Your task to perform on an android device: Open the stopwatch Image 0: 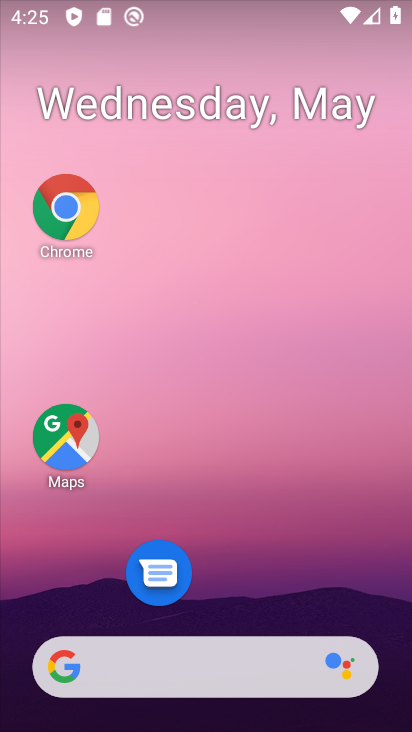
Step 0: drag from (316, 621) to (143, 19)
Your task to perform on an android device: Open the stopwatch Image 1: 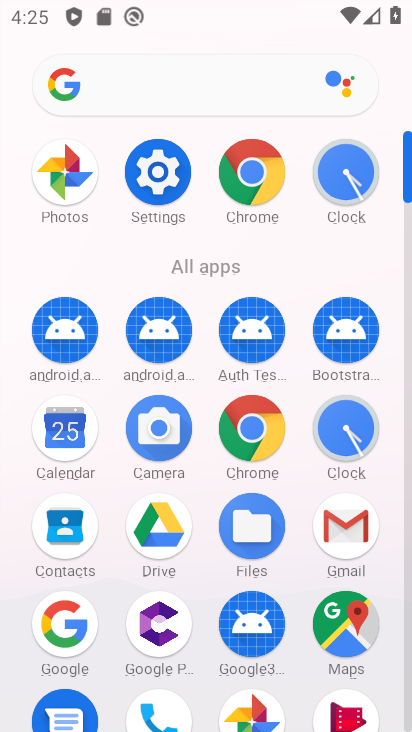
Step 1: click (352, 173)
Your task to perform on an android device: Open the stopwatch Image 2: 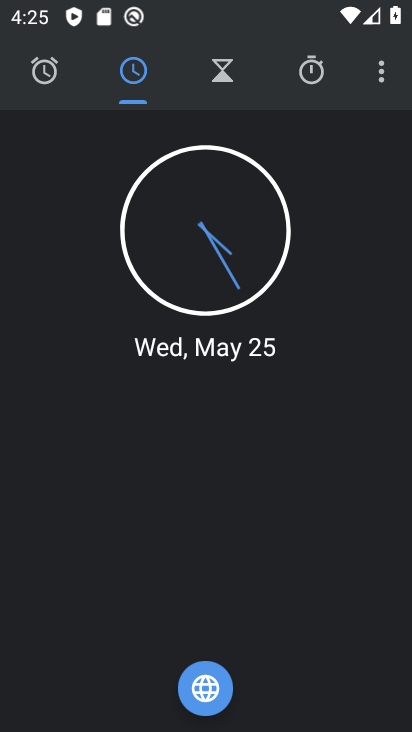
Step 2: click (323, 168)
Your task to perform on an android device: Open the stopwatch Image 3: 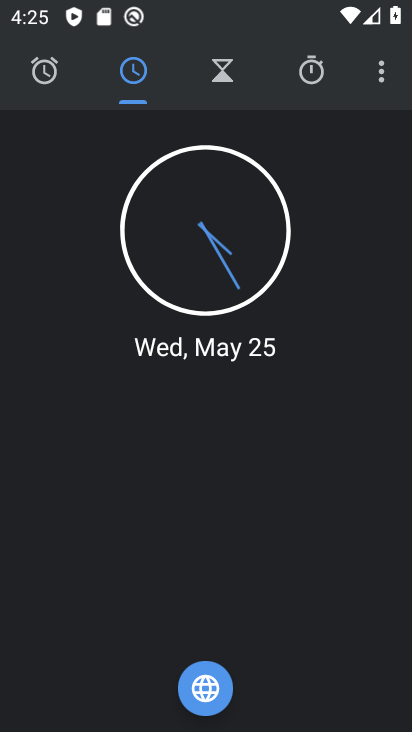
Step 3: click (327, 176)
Your task to perform on an android device: Open the stopwatch Image 4: 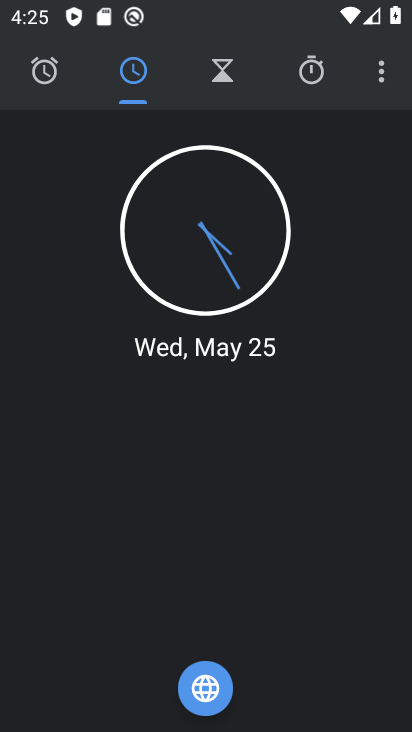
Step 4: click (327, 176)
Your task to perform on an android device: Open the stopwatch Image 5: 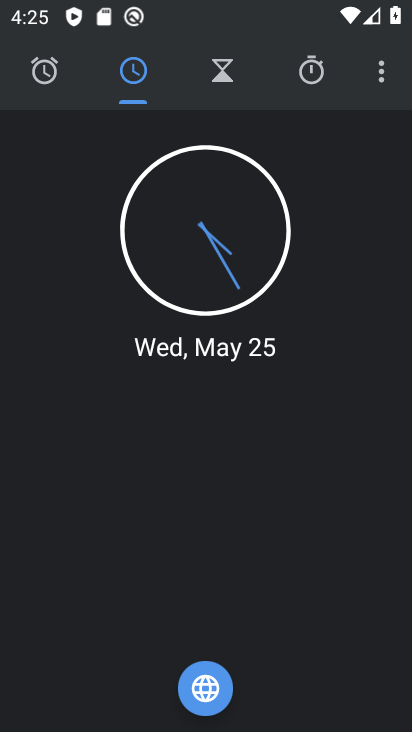
Step 5: click (327, 176)
Your task to perform on an android device: Open the stopwatch Image 6: 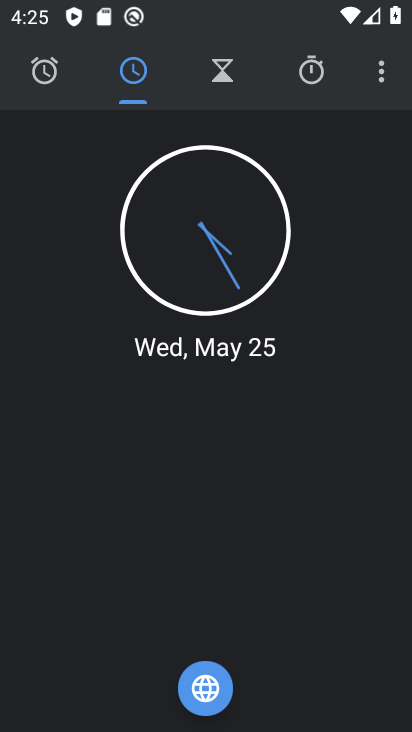
Step 6: click (327, 176)
Your task to perform on an android device: Open the stopwatch Image 7: 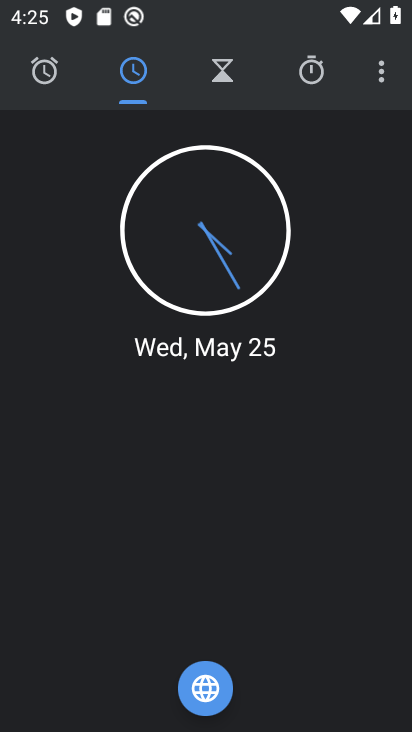
Step 7: click (318, 74)
Your task to perform on an android device: Open the stopwatch Image 8: 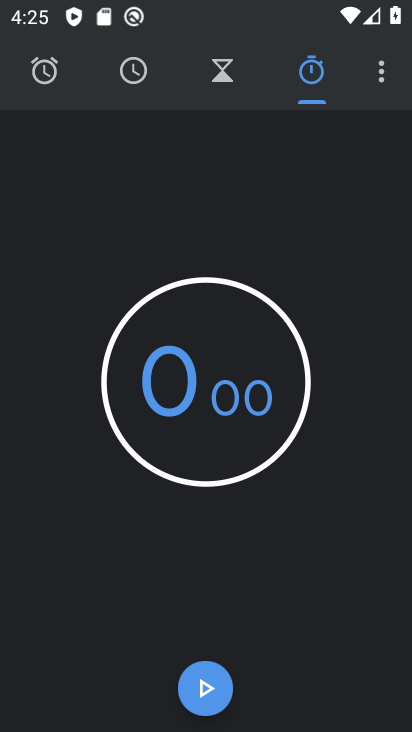
Step 8: click (217, 681)
Your task to perform on an android device: Open the stopwatch Image 9: 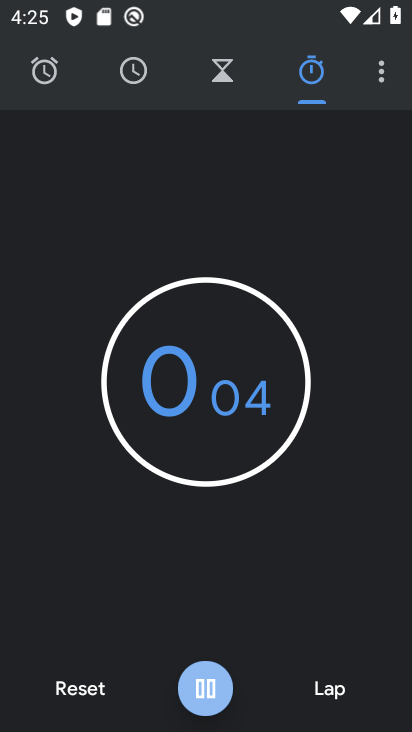
Step 9: click (196, 690)
Your task to perform on an android device: Open the stopwatch Image 10: 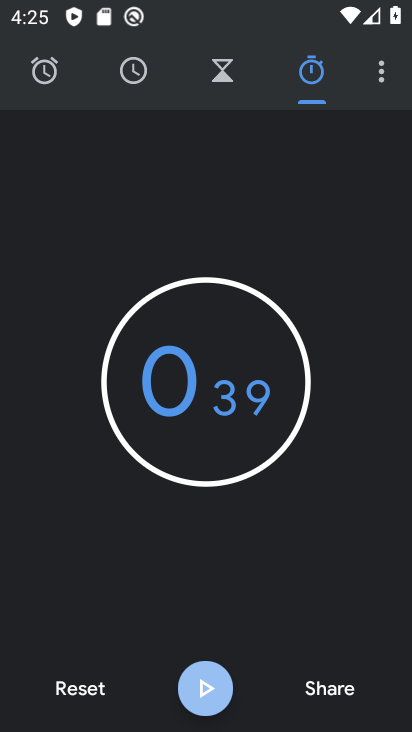
Step 10: click (196, 690)
Your task to perform on an android device: Open the stopwatch Image 11: 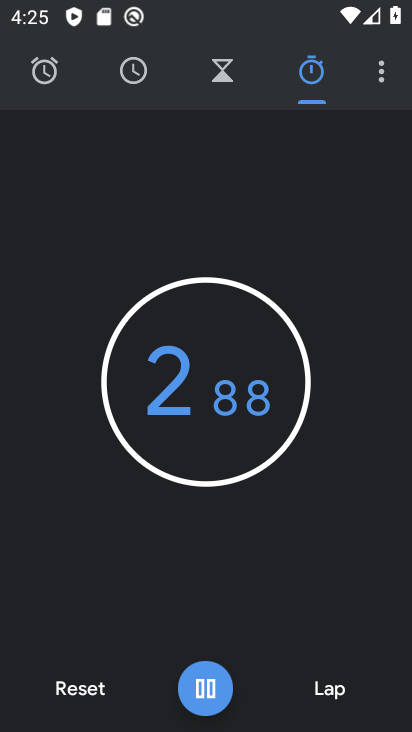
Step 11: click (196, 686)
Your task to perform on an android device: Open the stopwatch Image 12: 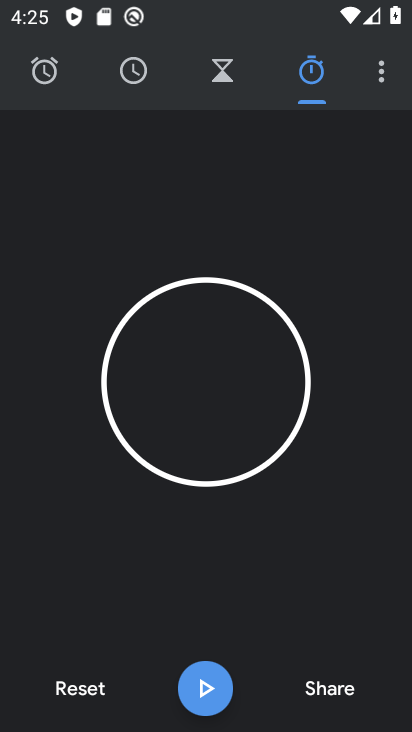
Step 12: click (201, 685)
Your task to perform on an android device: Open the stopwatch Image 13: 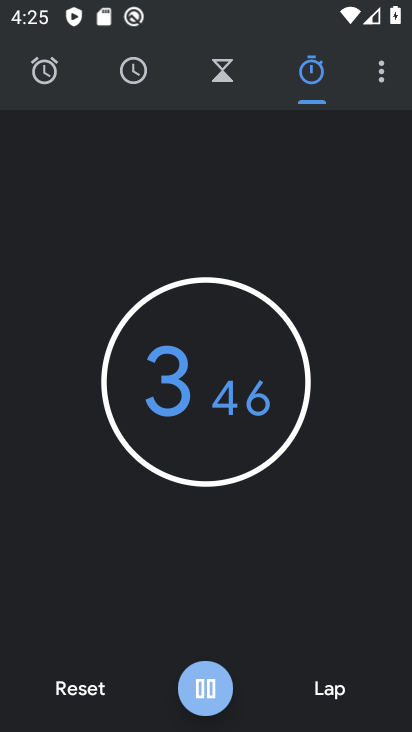
Step 13: click (203, 685)
Your task to perform on an android device: Open the stopwatch Image 14: 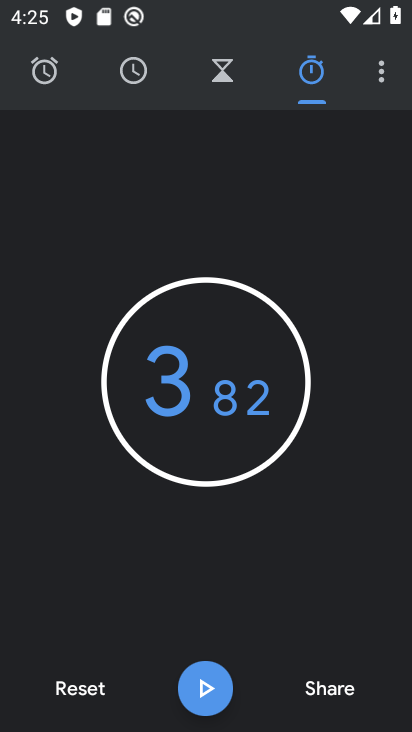
Step 14: click (204, 684)
Your task to perform on an android device: Open the stopwatch Image 15: 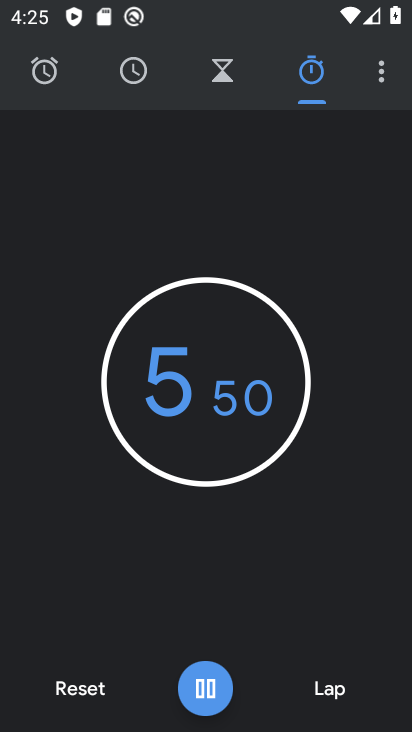
Step 15: click (210, 682)
Your task to perform on an android device: Open the stopwatch Image 16: 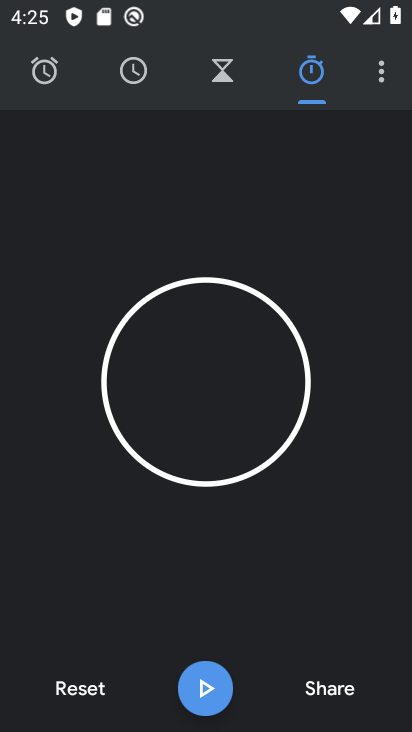
Step 16: task complete